Your task to perform on an android device: open wifi settings Image 0: 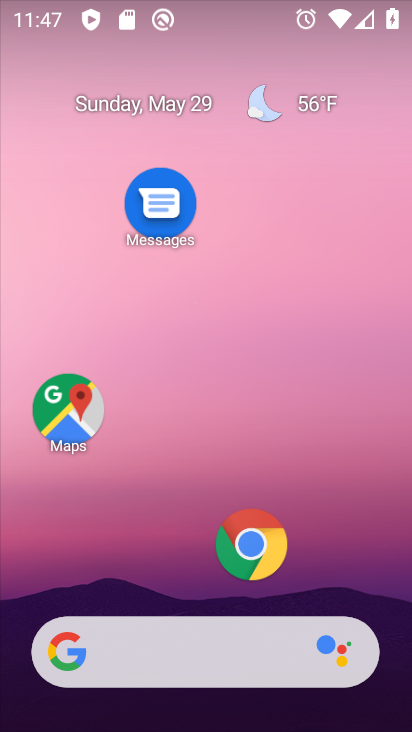
Step 0: drag from (170, 594) to (234, 82)
Your task to perform on an android device: open wifi settings Image 1: 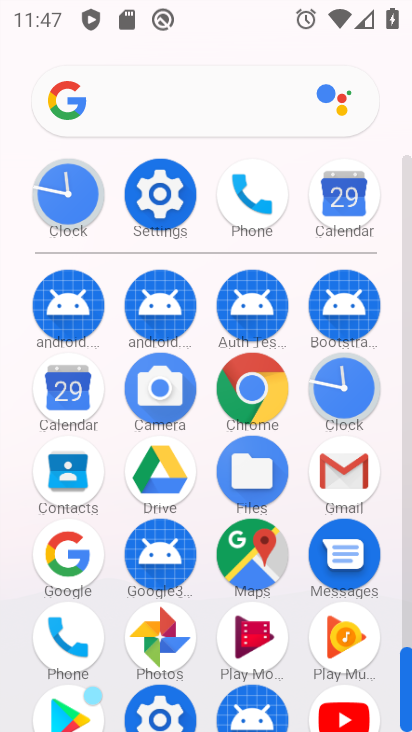
Step 1: click (156, 185)
Your task to perform on an android device: open wifi settings Image 2: 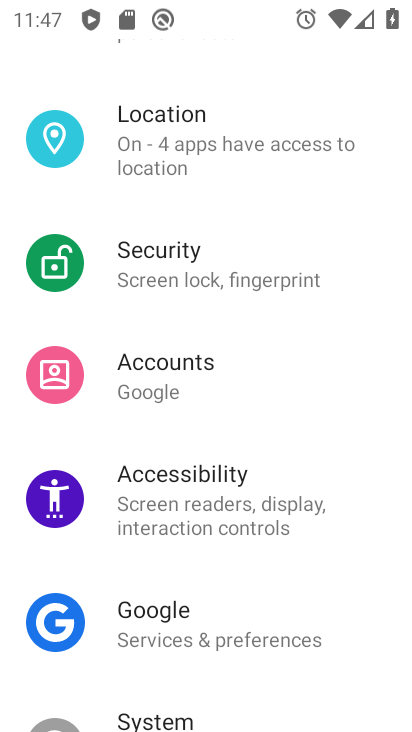
Step 2: drag from (171, 159) to (238, 696)
Your task to perform on an android device: open wifi settings Image 3: 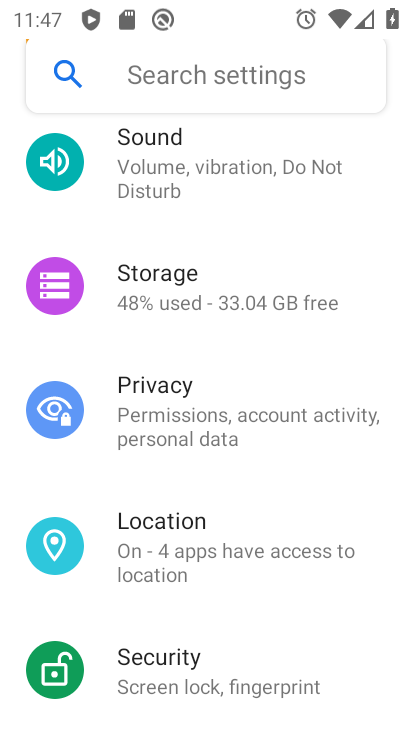
Step 3: drag from (193, 149) to (234, 724)
Your task to perform on an android device: open wifi settings Image 4: 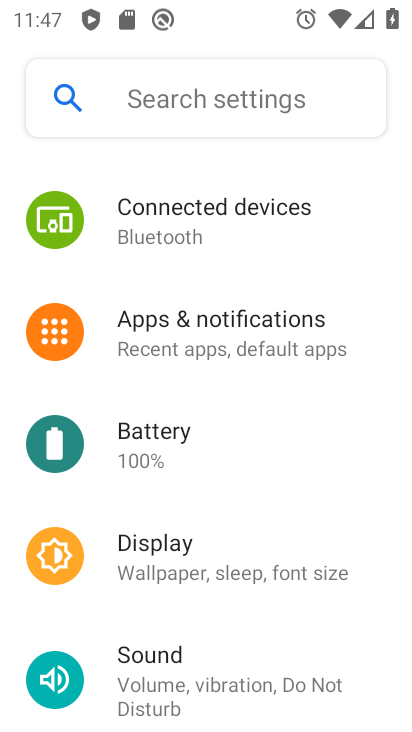
Step 4: drag from (190, 202) to (261, 727)
Your task to perform on an android device: open wifi settings Image 5: 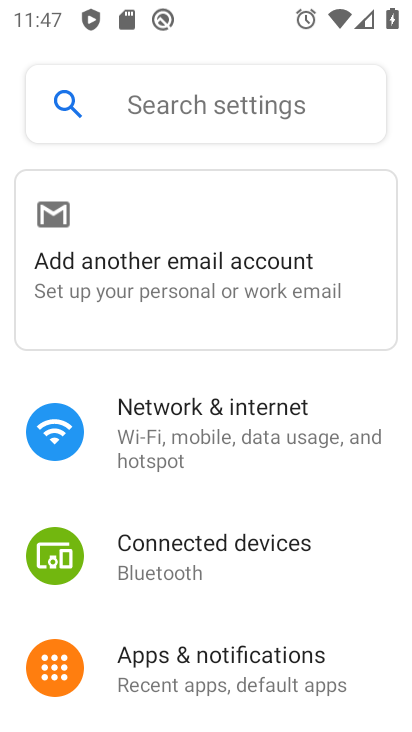
Step 5: click (218, 436)
Your task to perform on an android device: open wifi settings Image 6: 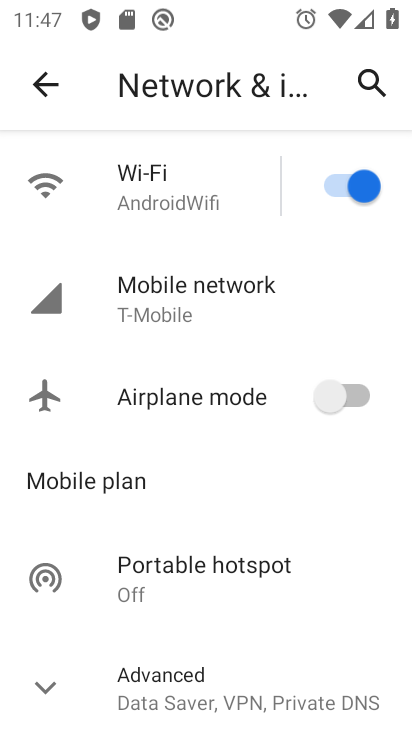
Step 6: click (216, 167)
Your task to perform on an android device: open wifi settings Image 7: 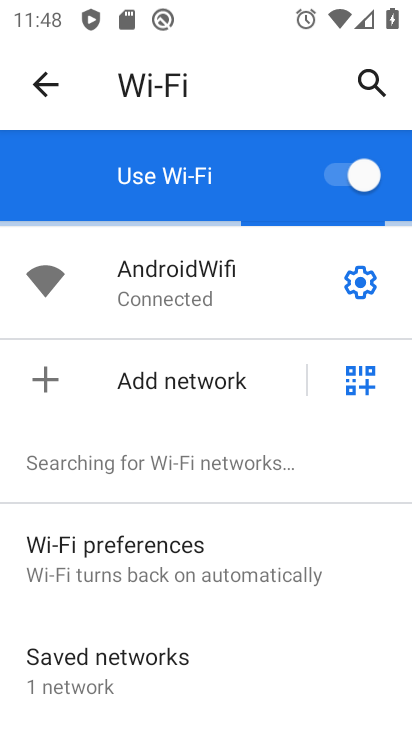
Step 7: task complete